Your task to perform on an android device: toggle notification dots Image 0: 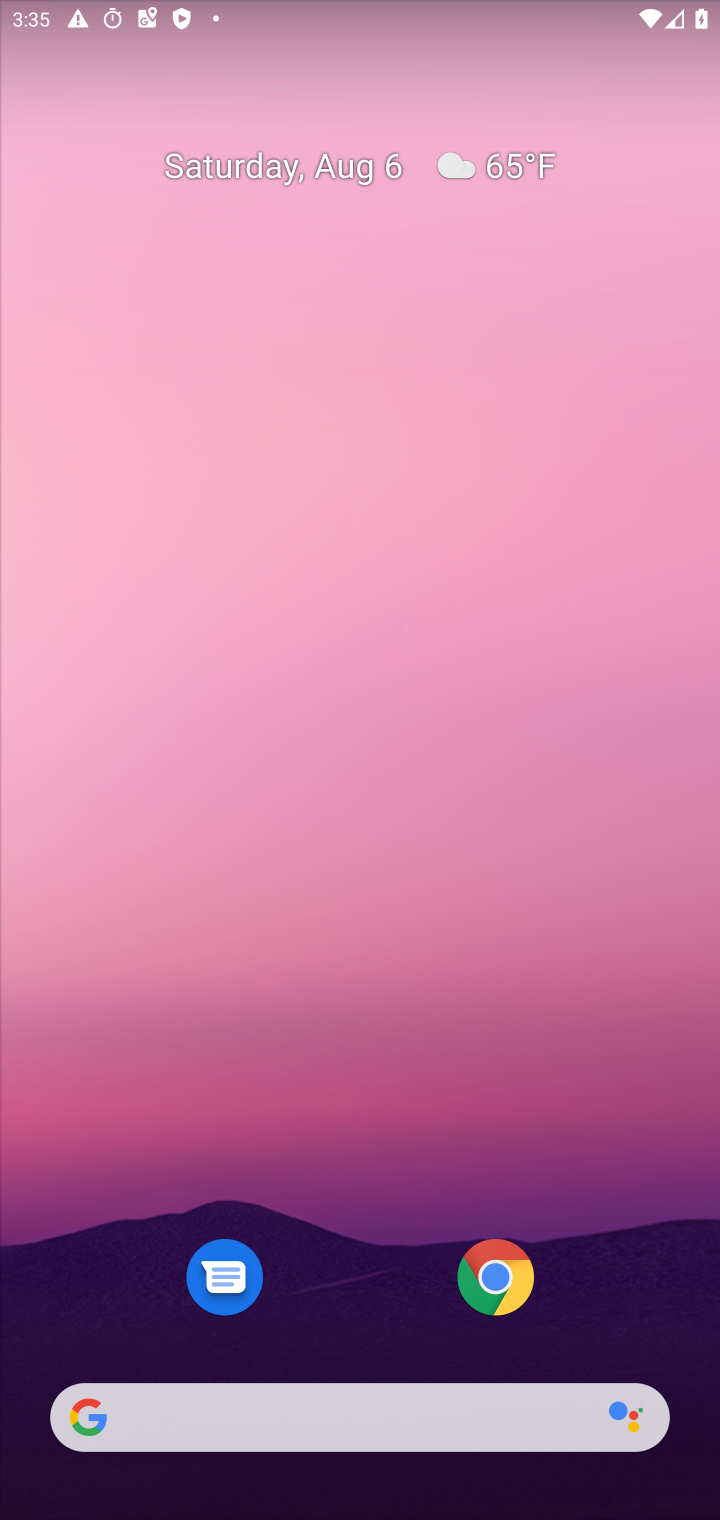
Step 0: drag from (504, 1418) to (462, 197)
Your task to perform on an android device: toggle notification dots Image 1: 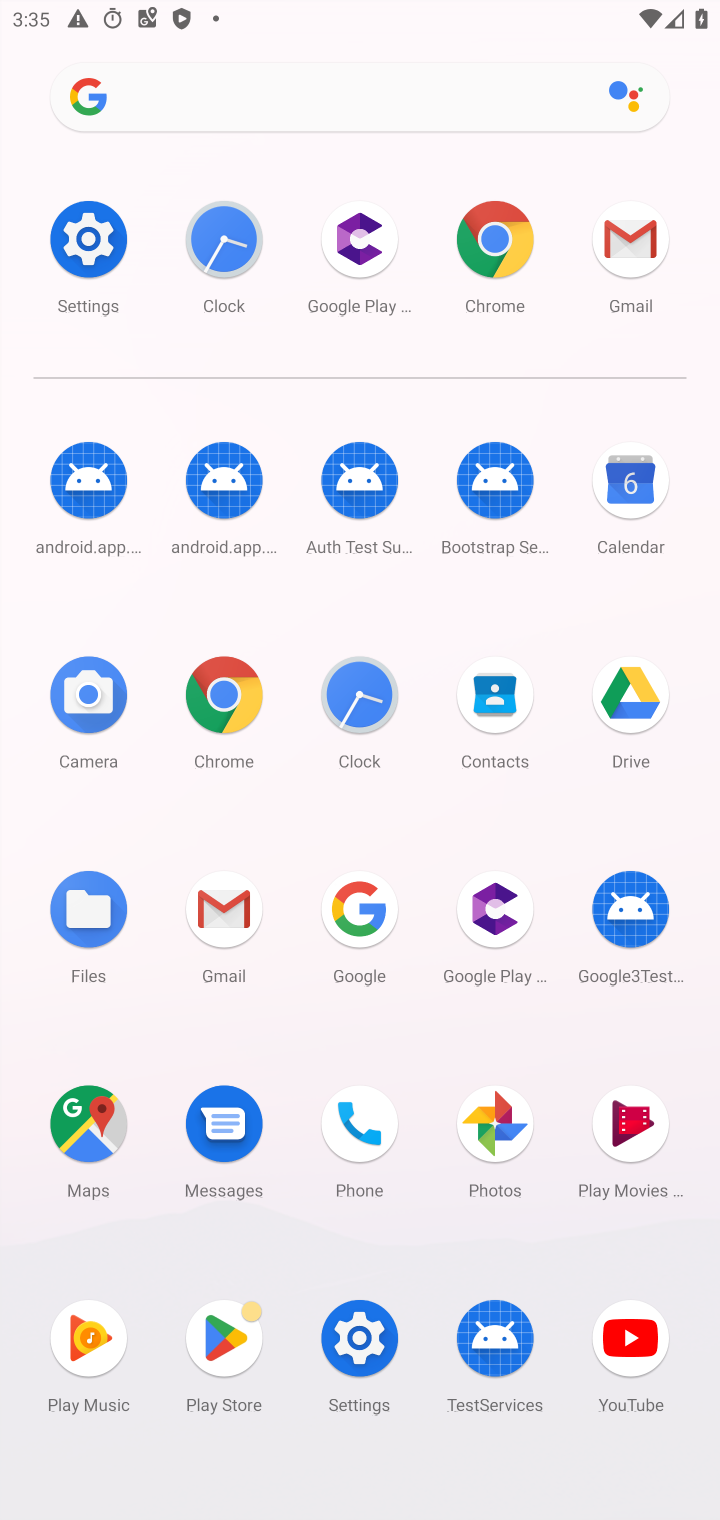
Step 1: click (83, 224)
Your task to perform on an android device: toggle notification dots Image 2: 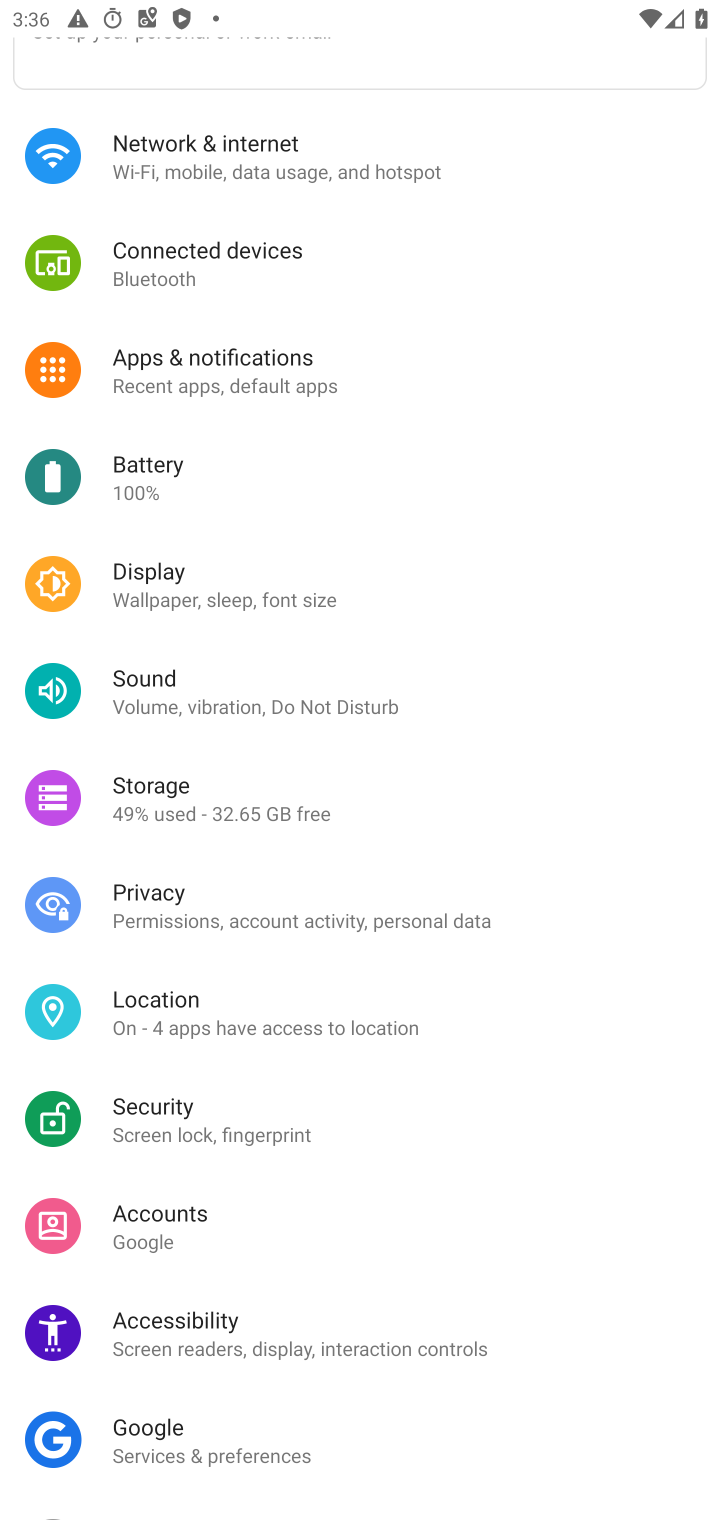
Step 2: click (189, 375)
Your task to perform on an android device: toggle notification dots Image 3: 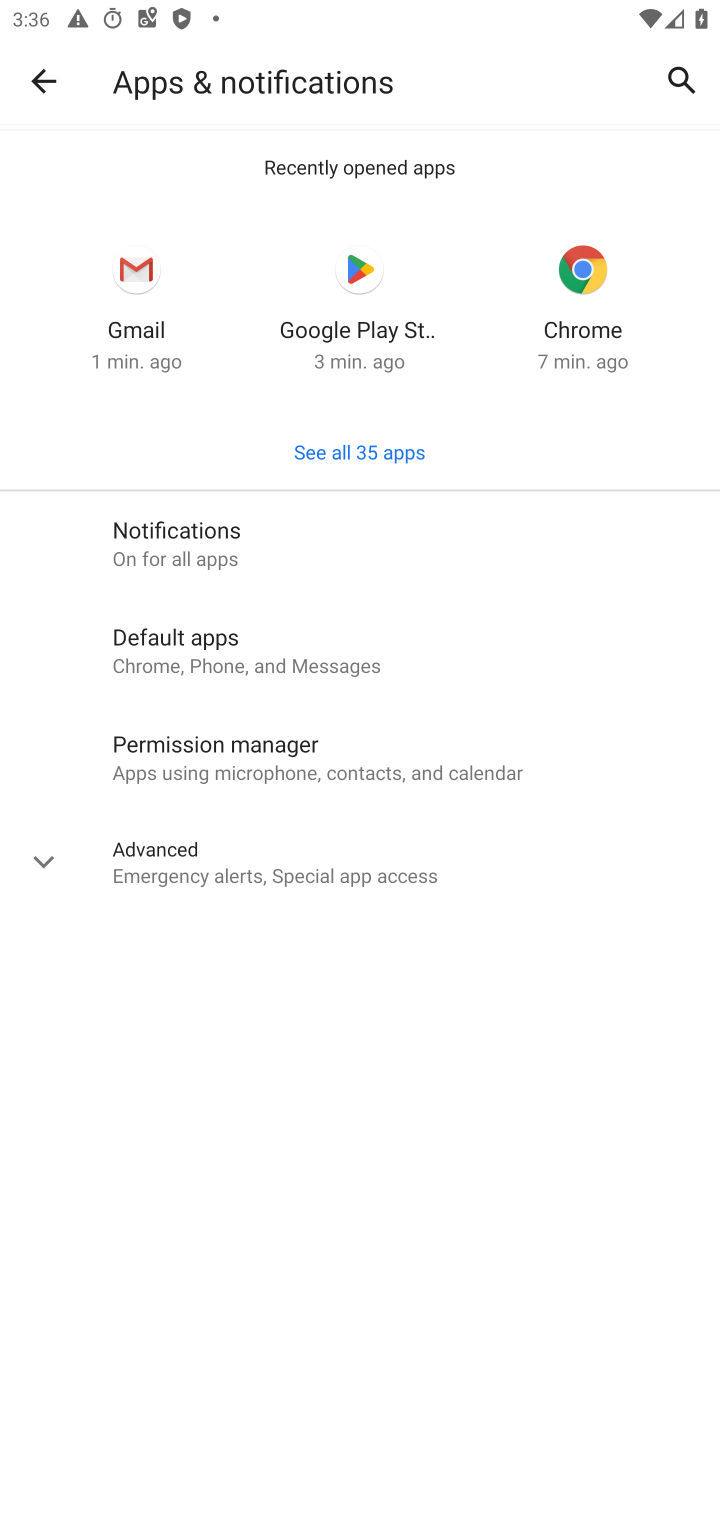
Step 3: click (252, 553)
Your task to perform on an android device: toggle notification dots Image 4: 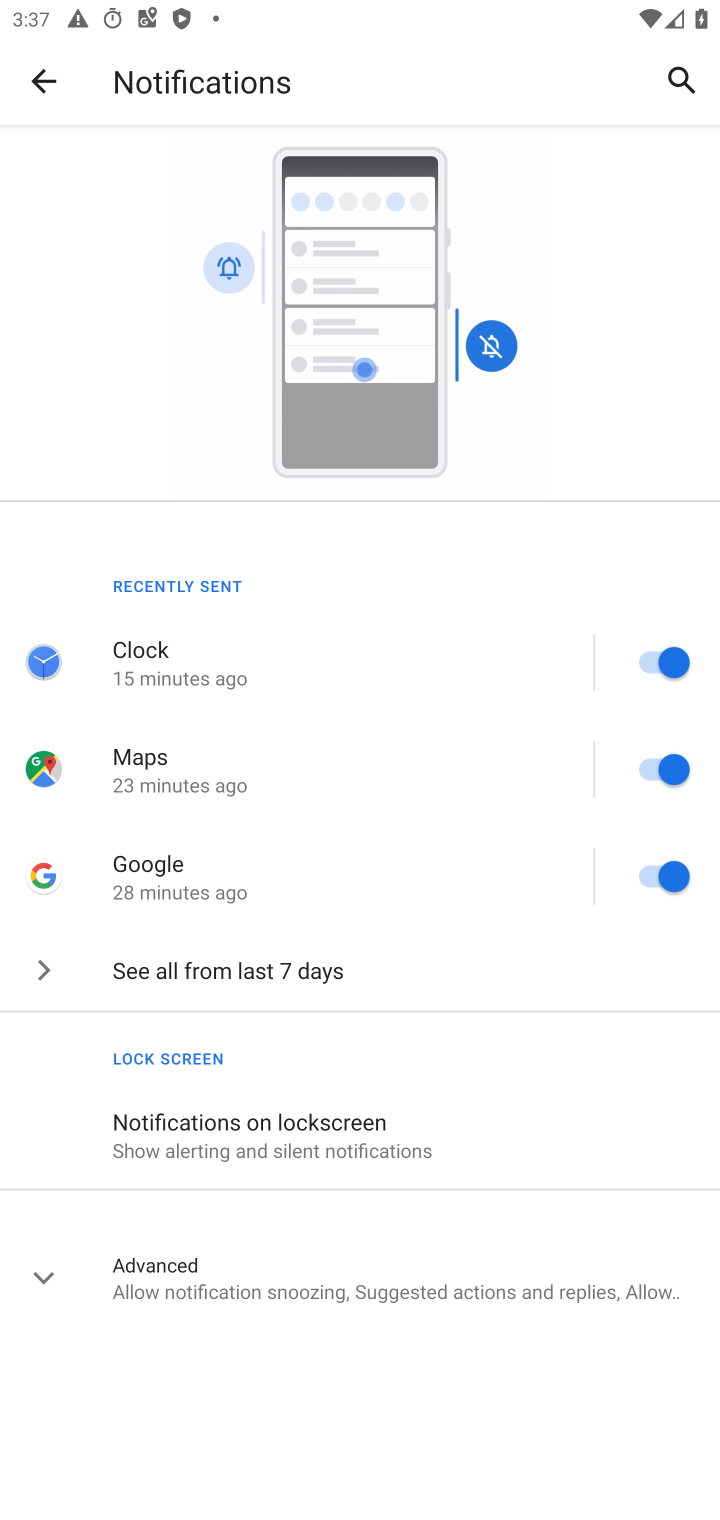
Step 4: click (205, 1266)
Your task to perform on an android device: toggle notification dots Image 5: 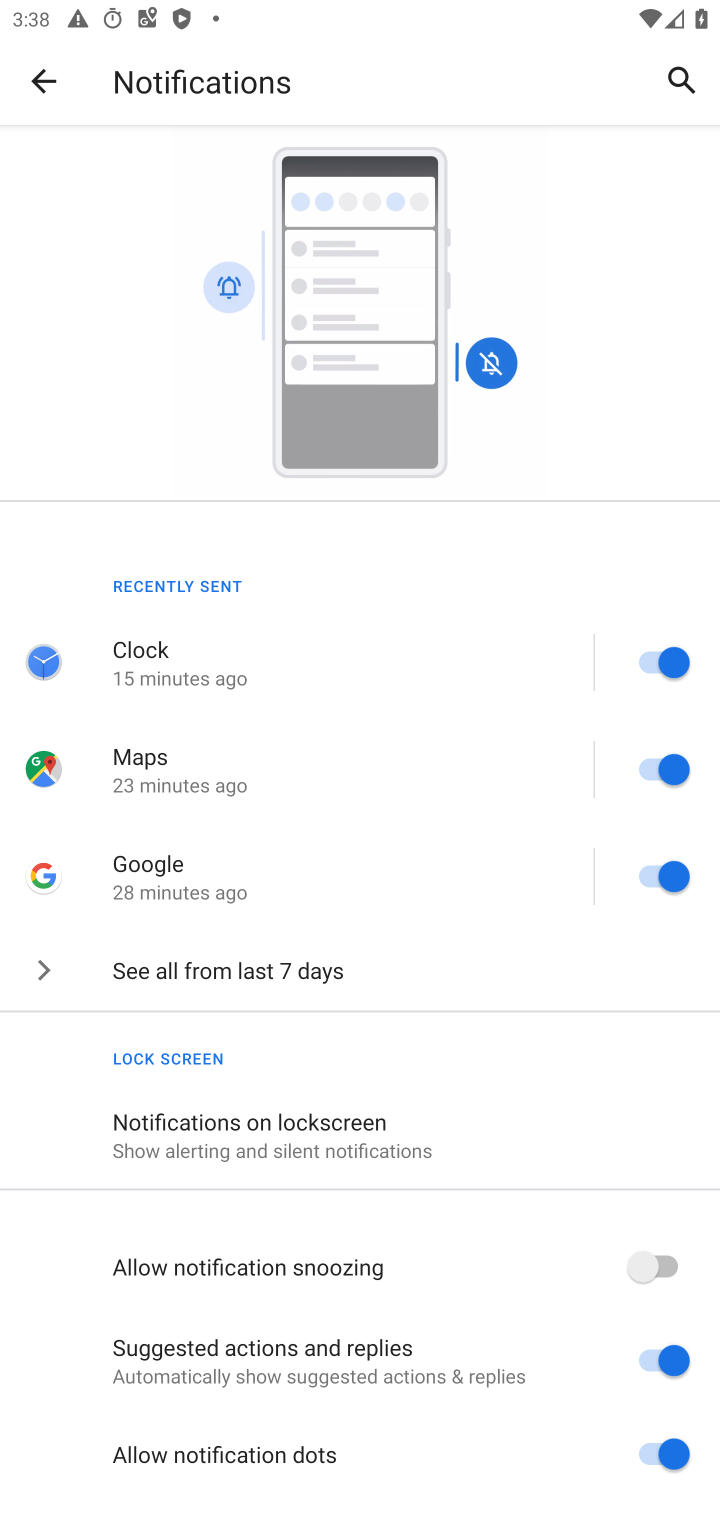
Step 5: click (653, 1449)
Your task to perform on an android device: toggle notification dots Image 6: 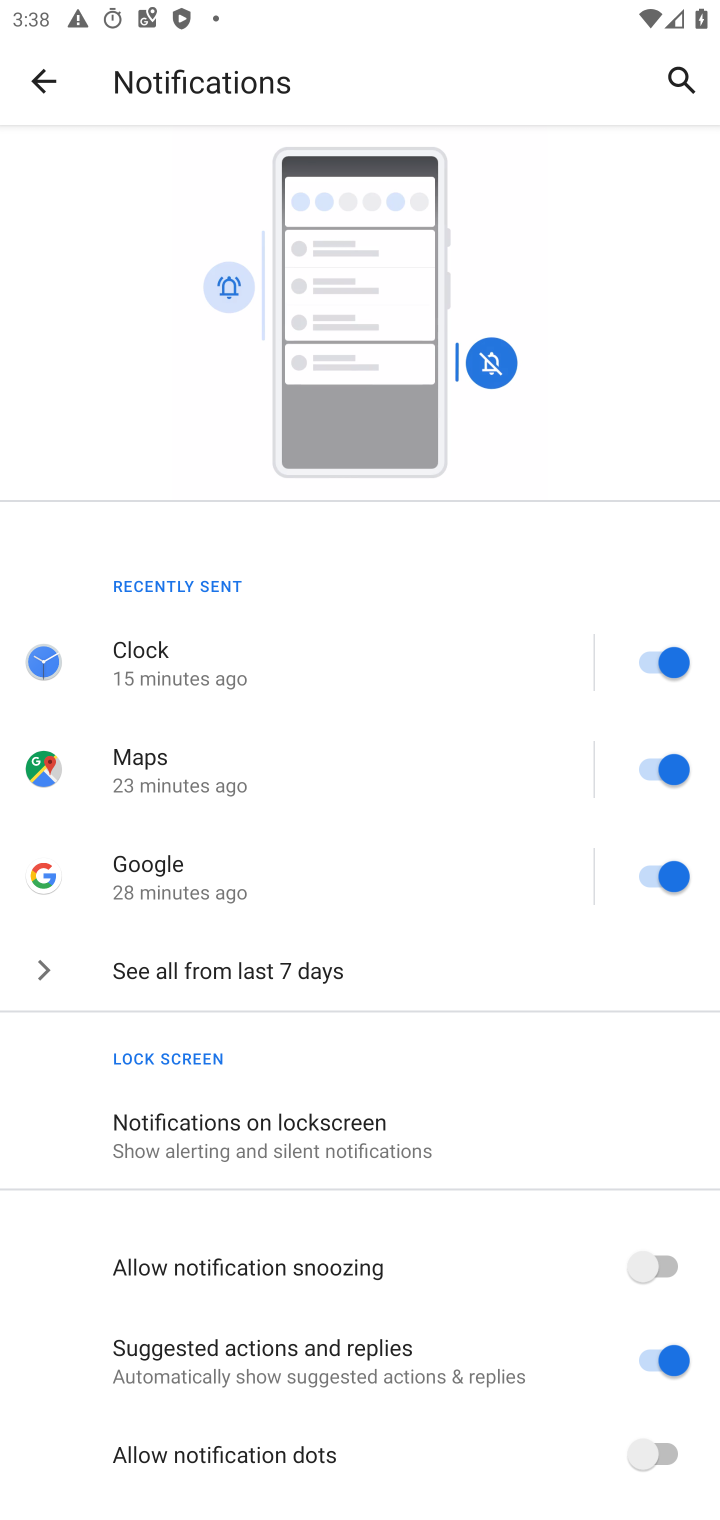
Step 6: task complete